Your task to perform on an android device: Go to Google maps Image 0: 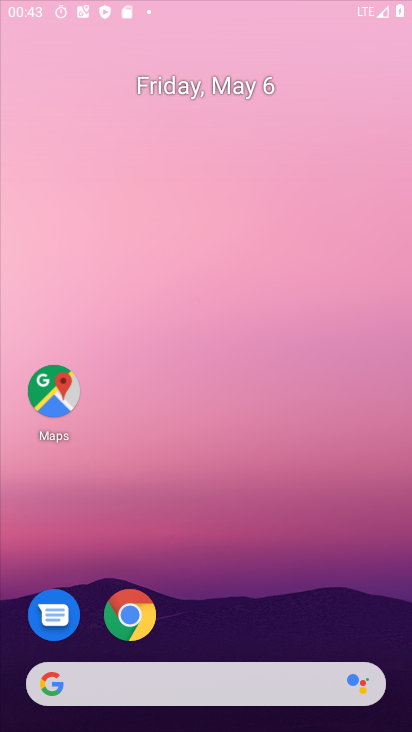
Step 0: press home button
Your task to perform on an android device: Go to Google maps Image 1: 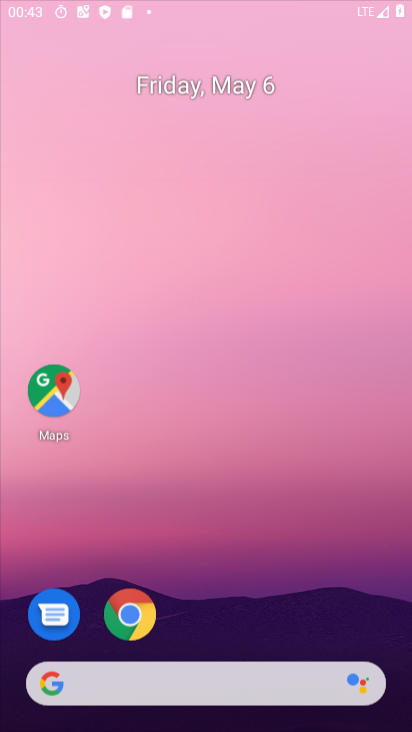
Step 1: drag from (231, 597) to (292, 133)
Your task to perform on an android device: Go to Google maps Image 2: 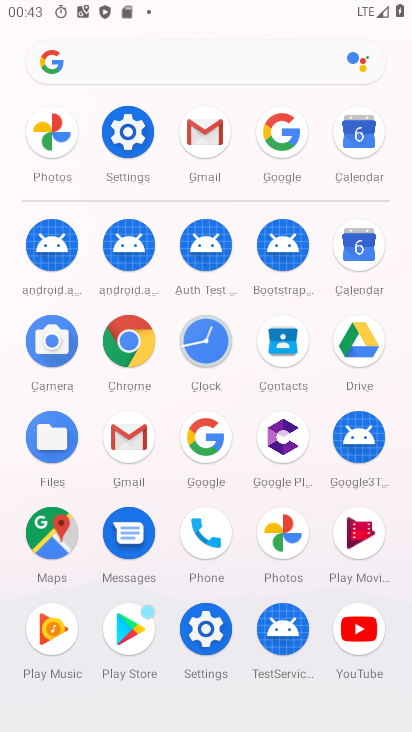
Step 2: click (54, 542)
Your task to perform on an android device: Go to Google maps Image 3: 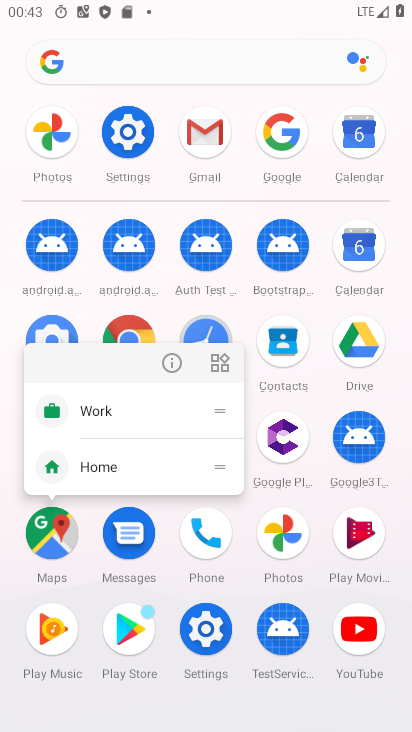
Step 3: click (52, 535)
Your task to perform on an android device: Go to Google maps Image 4: 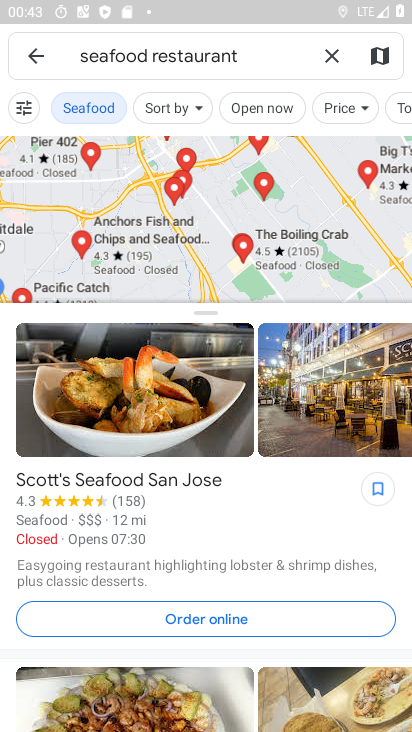
Step 4: task complete